Your task to perform on an android device: Go to Yahoo.com Image 0: 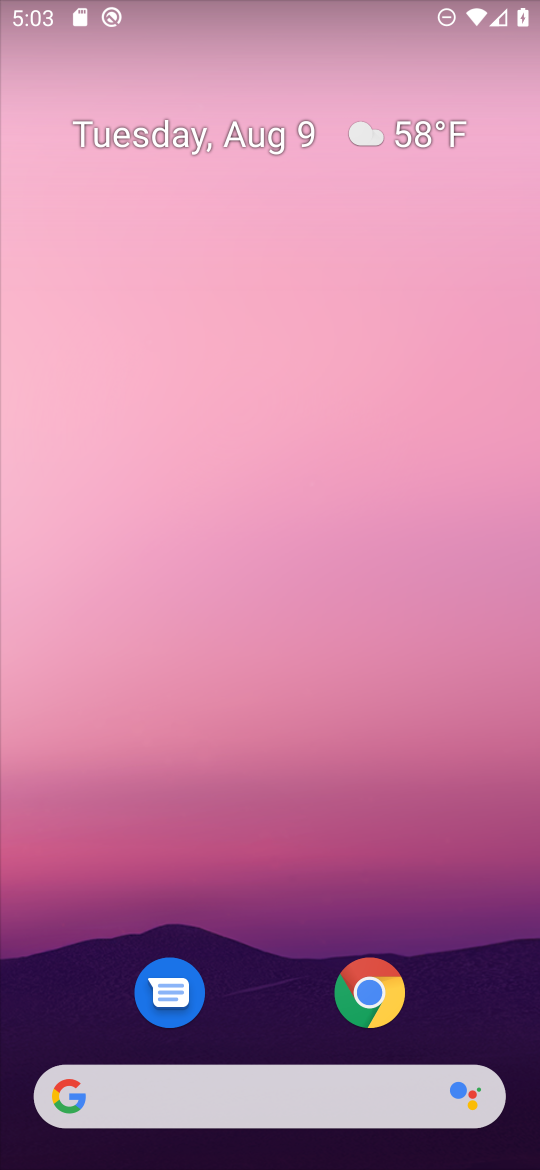
Step 0: drag from (227, 1136) to (483, 333)
Your task to perform on an android device: Go to Yahoo.com Image 1: 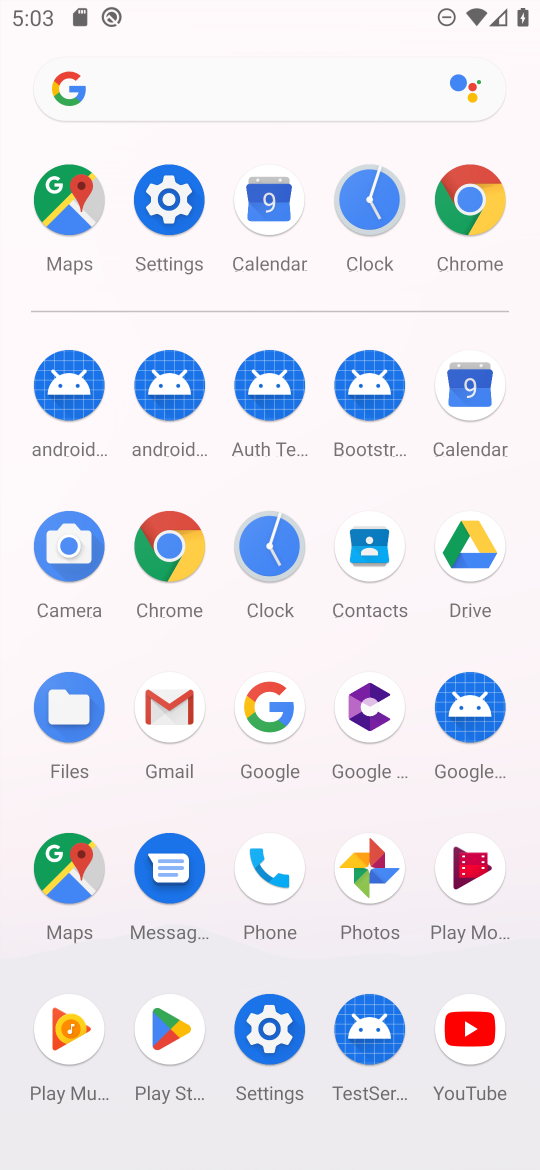
Step 1: click (175, 525)
Your task to perform on an android device: Go to Yahoo.com Image 2: 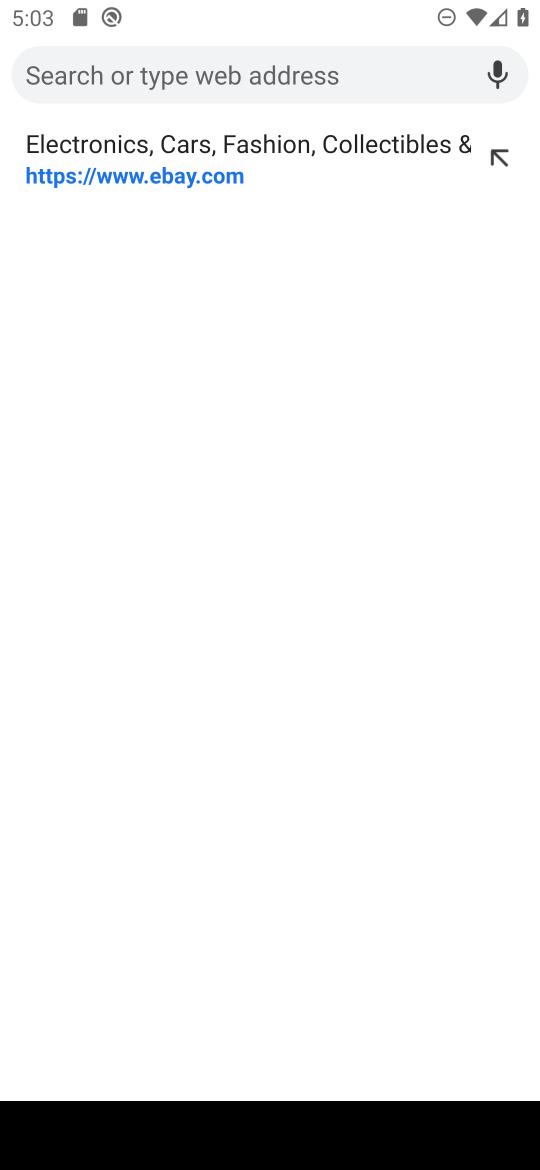
Step 2: type "yahoo.com"
Your task to perform on an android device: Go to Yahoo.com Image 3: 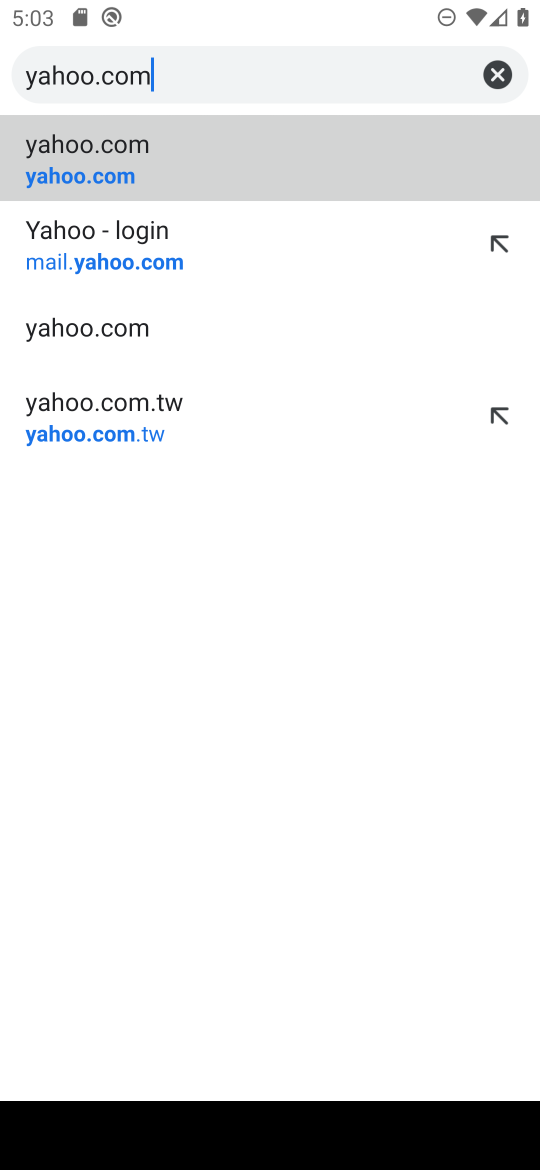
Step 3: click (109, 186)
Your task to perform on an android device: Go to Yahoo.com Image 4: 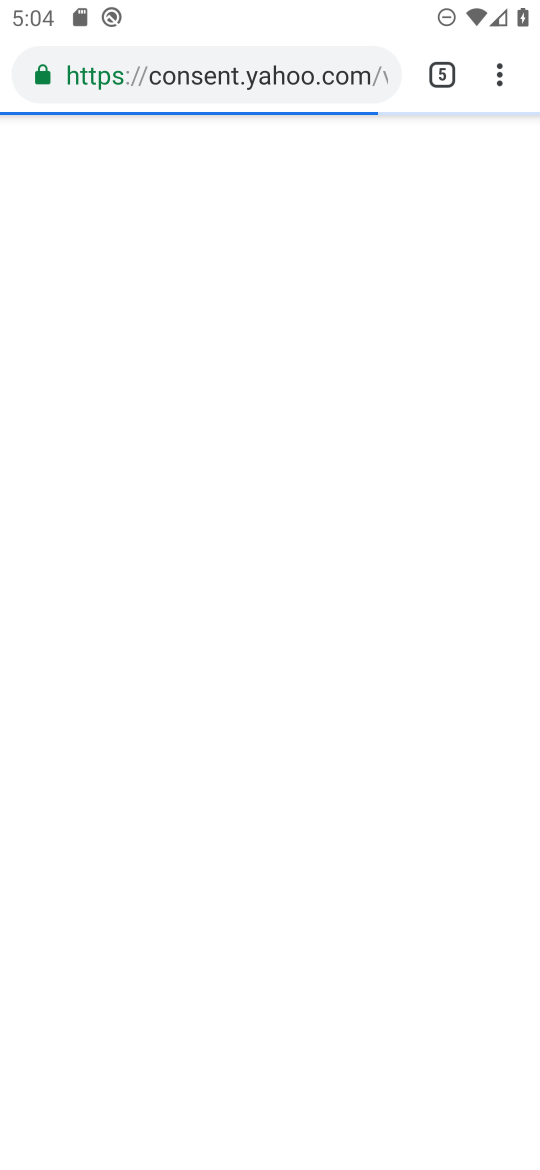
Step 4: task complete